Your task to perform on an android device: Open Chrome and go to settings Image 0: 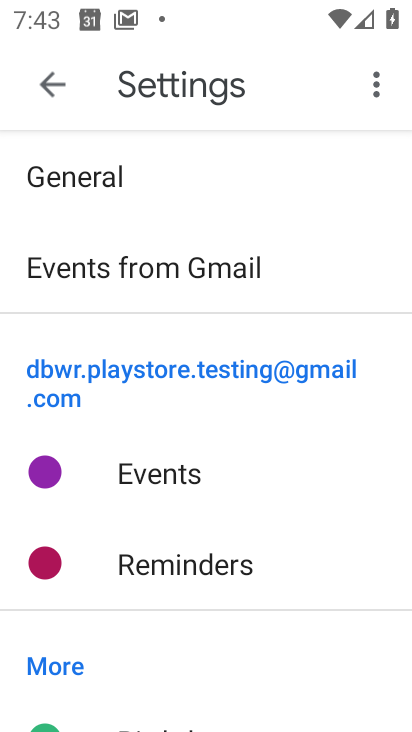
Step 0: press back button
Your task to perform on an android device: Open Chrome and go to settings Image 1: 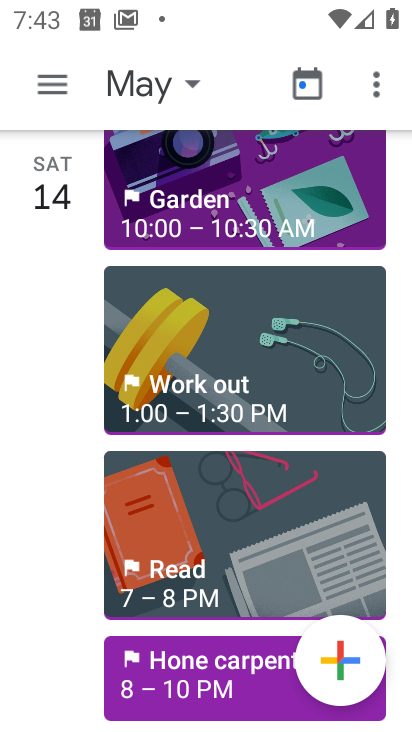
Step 1: press back button
Your task to perform on an android device: Open Chrome and go to settings Image 2: 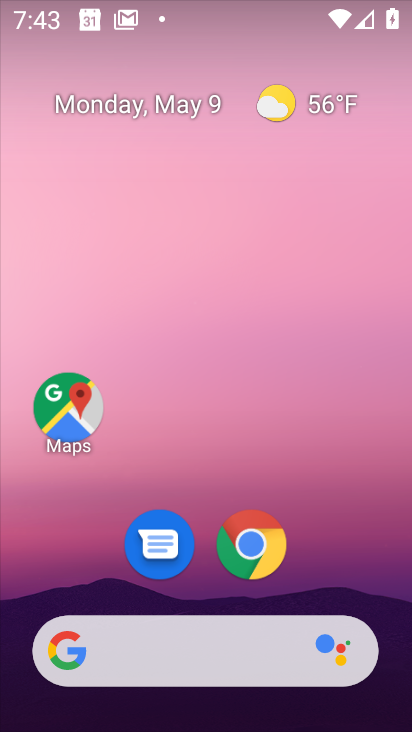
Step 2: click (252, 548)
Your task to perform on an android device: Open Chrome and go to settings Image 3: 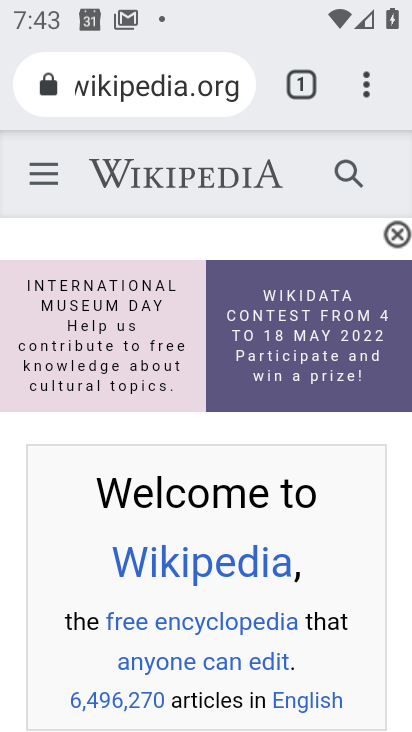
Step 3: click (369, 87)
Your task to perform on an android device: Open Chrome and go to settings Image 4: 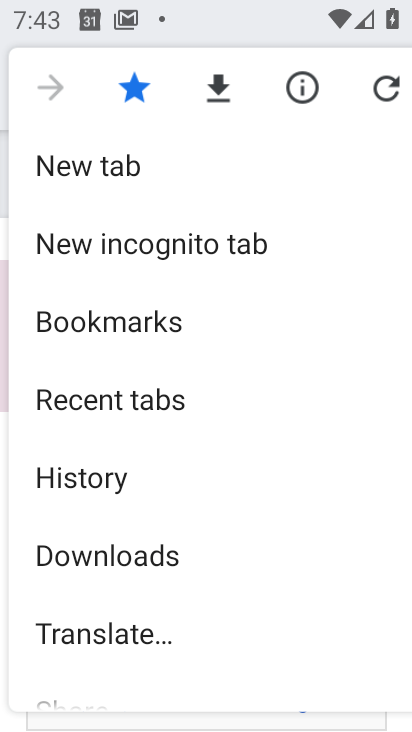
Step 4: drag from (136, 491) to (177, 374)
Your task to perform on an android device: Open Chrome and go to settings Image 5: 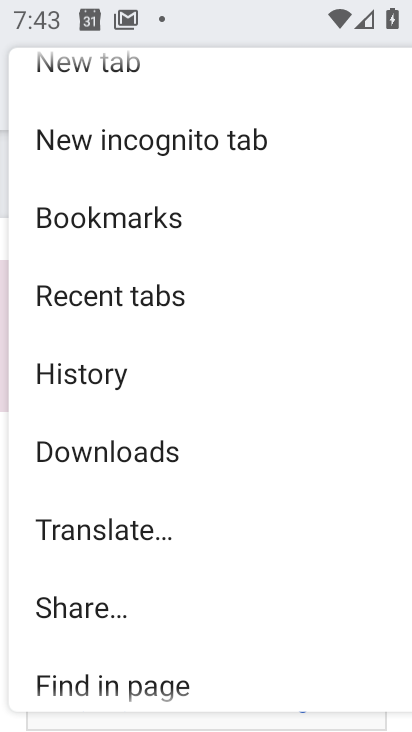
Step 5: drag from (147, 580) to (242, 442)
Your task to perform on an android device: Open Chrome and go to settings Image 6: 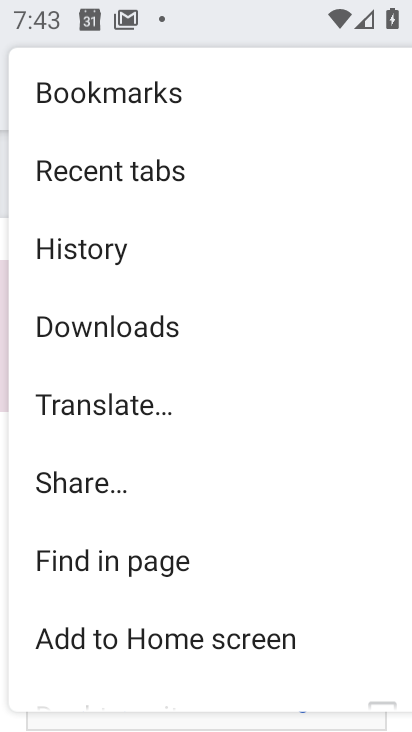
Step 6: drag from (197, 580) to (271, 426)
Your task to perform on an android device: Open Chrome and go to settings Image 7: 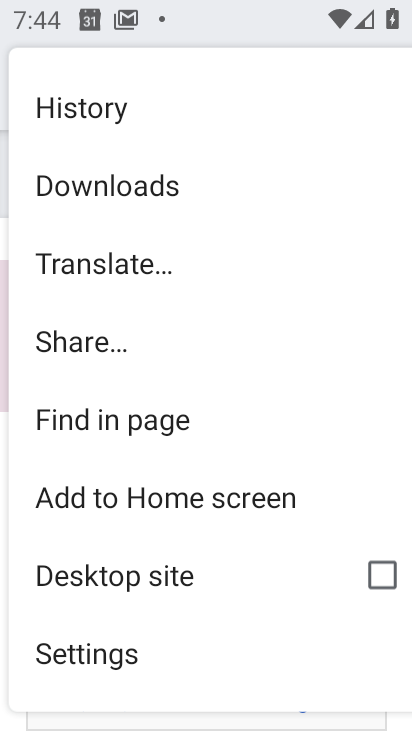
Step 7: click (121, 659)
Your task to perform on an android device: Open Chrome and go to settings Image 8: 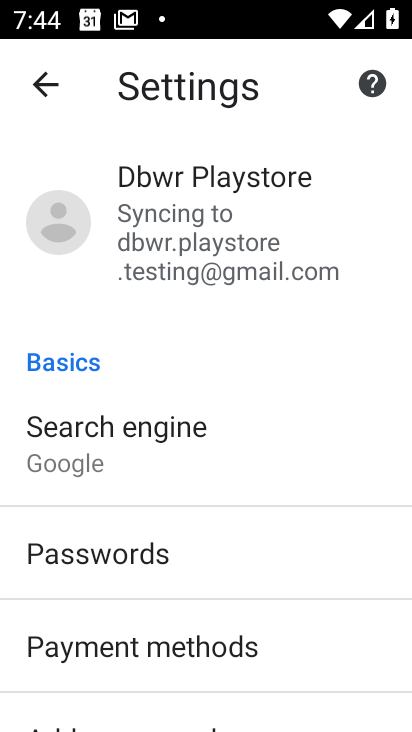
Step 8: task complete